Your task to perform on an android device: Go to network settings Image 0: 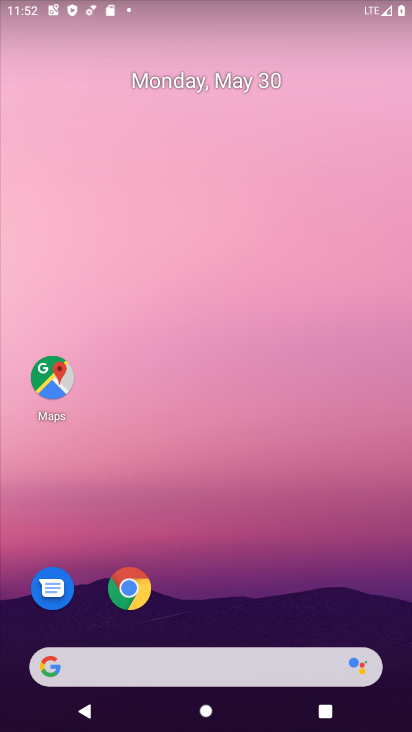
Step 0: drag from (234, 603) to (348, 37)
Your task to perform on an android device: Go to network settings Image 1: 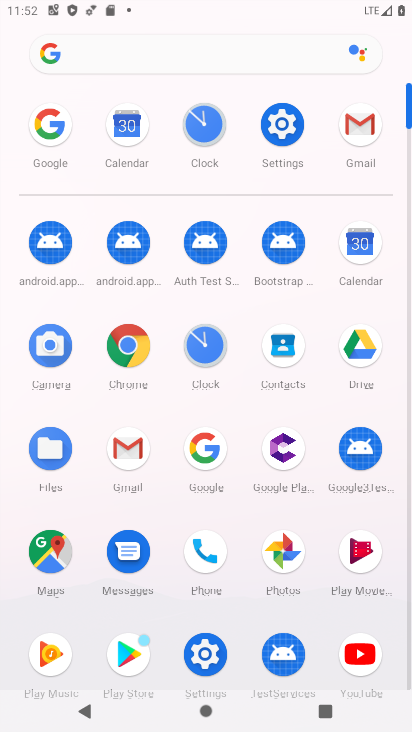
Step 1: click (282, 124)
Your task to perform on an android device: Go to network settings Image 2: 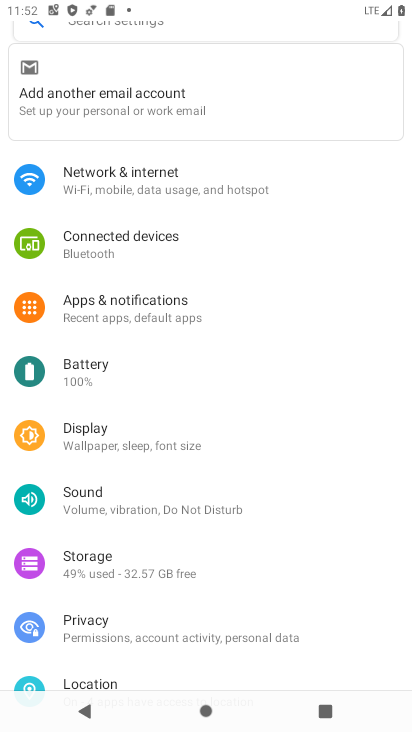
Step 2: click (184, 177)
Your task to perform on an android device: Go to network settings Image 3: 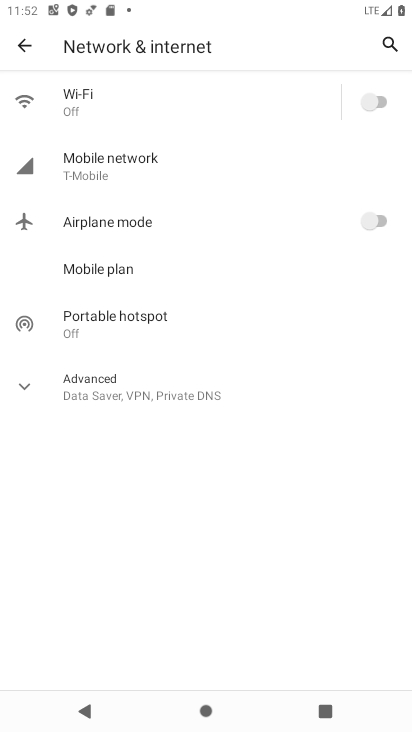
Step 3: click (44, 385)
Your task to perform on an android device: Go to network settings Image 4: 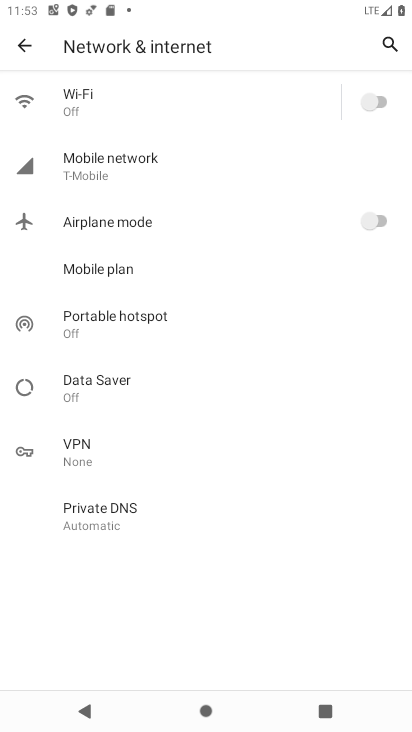
Step 4: task complete